Your task to perform on an android device: turn vacation reply on in the gmail app Image 0: 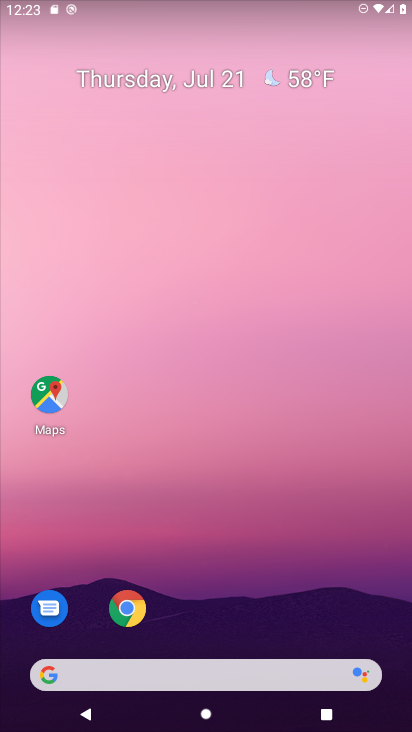
Step 0: press home button
Your task to perform on an android device: turn vacation reply on in the gmail app Image 1: 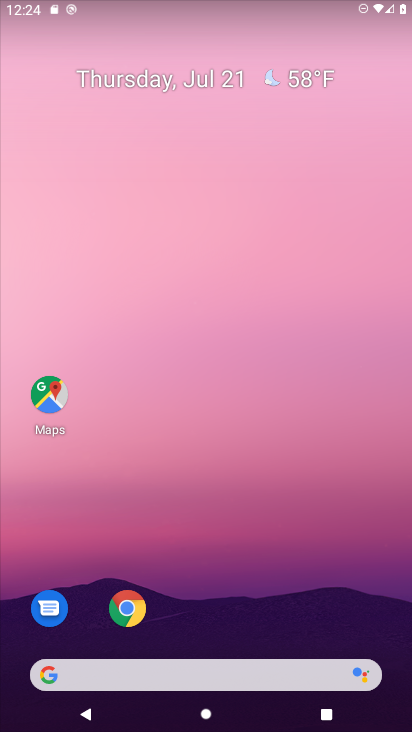
Step 1: press home button
Your task to perform on an android device: turn vacation reply on in the gmail app Image 2: 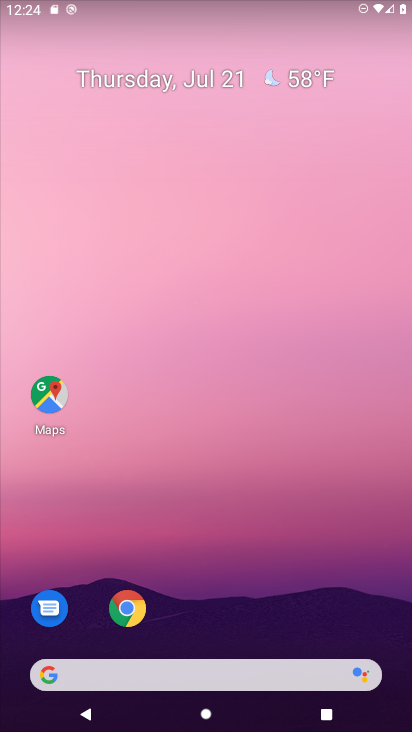
Step 2: drag from (267, 626) to (353, 74)
Your task to perform on an android device: turn vacation reply on in the gmail app Image 3: 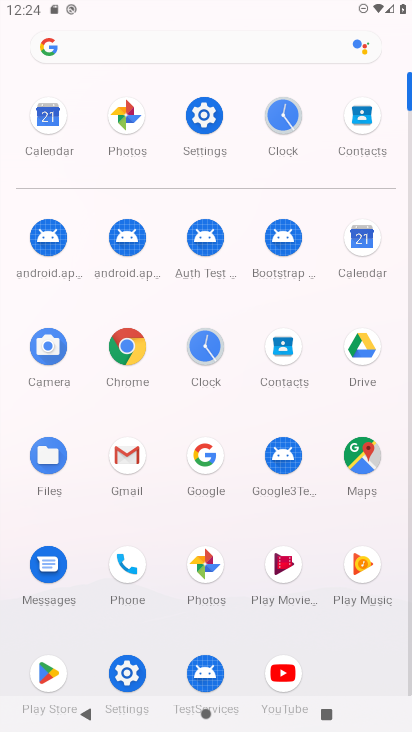
Step 3: drag from (327, 293) to (35, 252)
Your task to perform on an android device: turn vacation reply on in the gmail app Image 4: 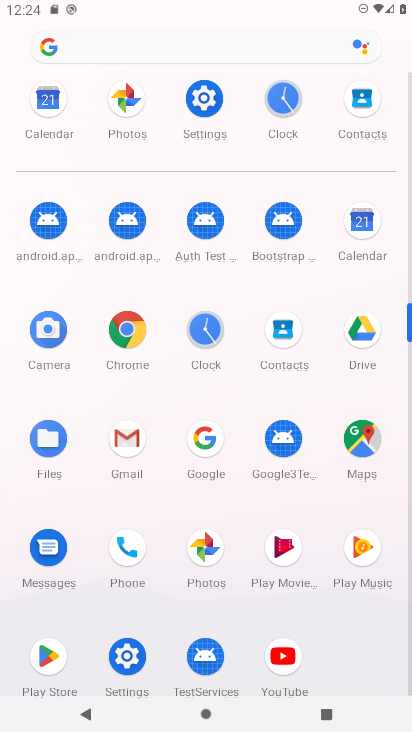
Step 4: drag from (366, 299) to (0, 298)
Your task to perform on an android device: turn vacation reply on in the gmail app Image 5: 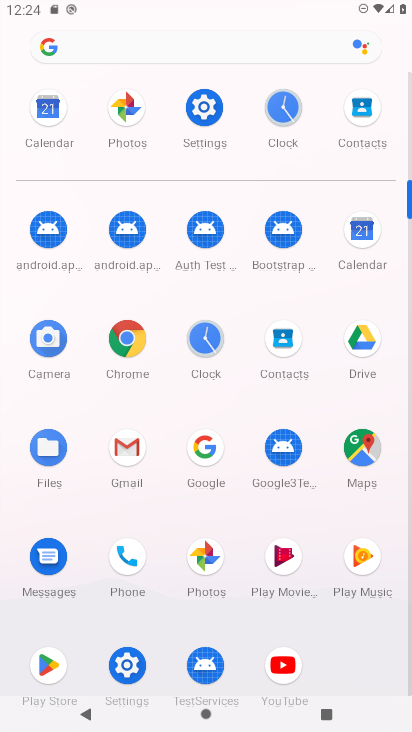
Step 5: click (129, 441)
Your task to perform on an android device: turn vacation reply on in the gmail app Image 6: 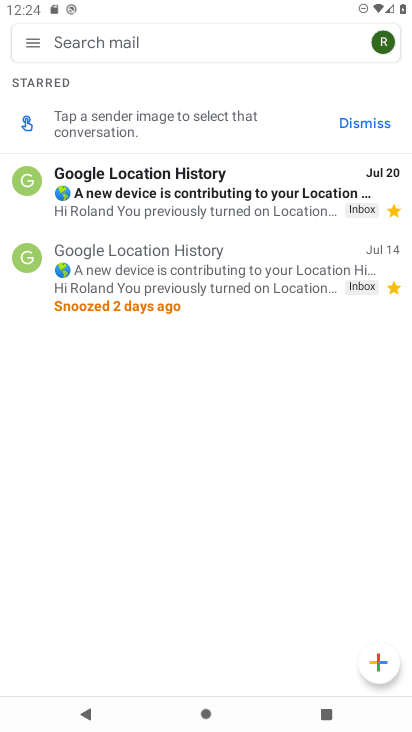
Step 6: click (34, 47)
Your task to perform on an android device: turn vacation reply on in the gmail app Image 7: 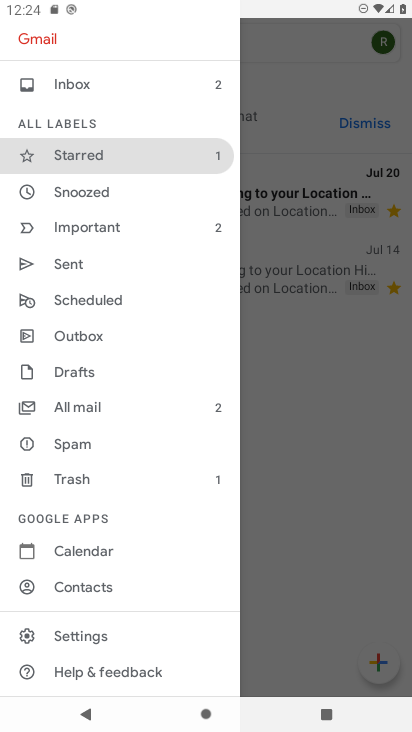
Step 7: click (61, 623)
Your task to perform on an android device: turn vacation reply on in the gmail app Image 8: 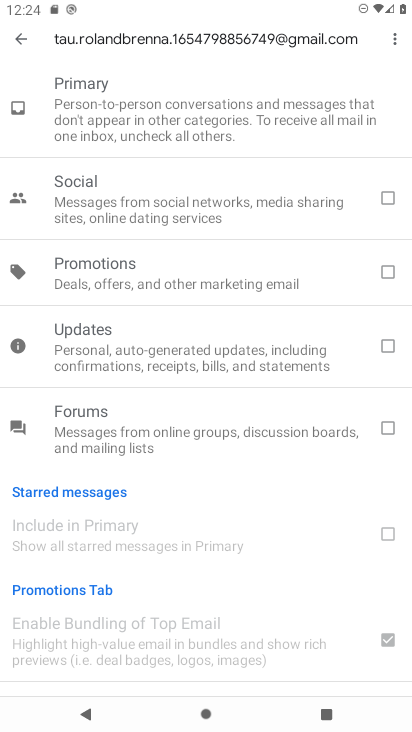
Step 8: drag from (216, 662) to (225, 130)
Your task to perform on an android device: turn vacation reply on in the gmail app Image 9: 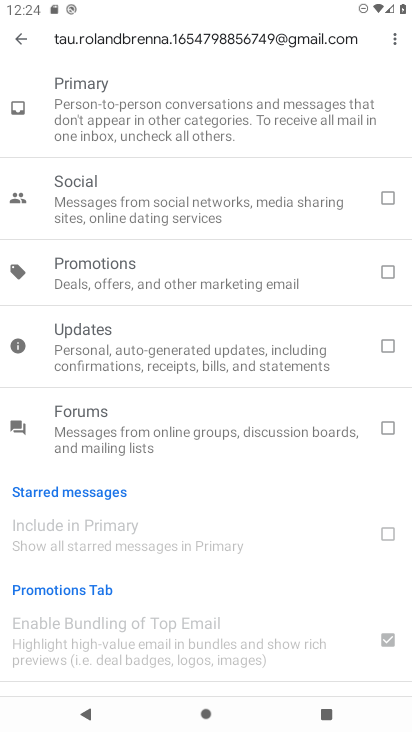
Step 9: drag from (201, 628) to (240, 175)
Your task to perform on an android device: turn vacation reply on in the gmail app Image 10: 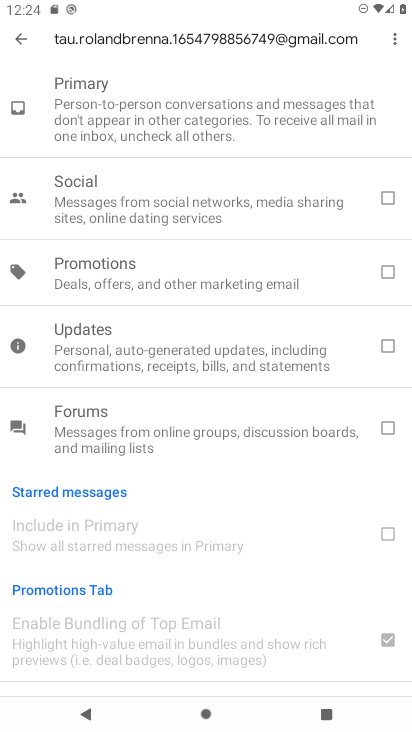
Step 10: drag from (188, 500) to (130, 702)
Your task to perform on an android device: turn vacation reply on in the gmail app Image 11: 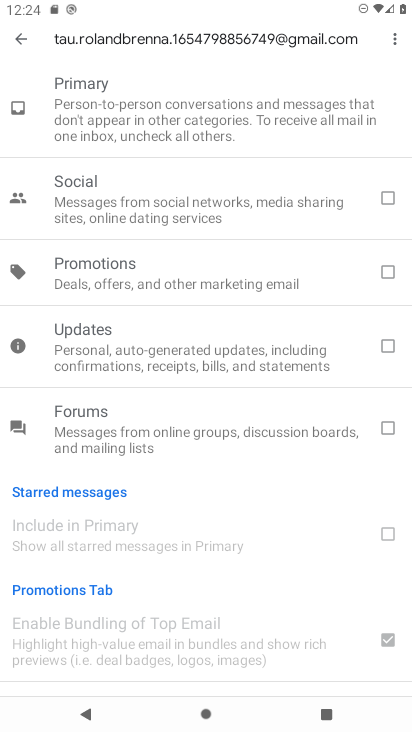
Step 11: click (11, 35)
Your task to perform on an android device: turn vacation reply on in the gmail app Image 12: 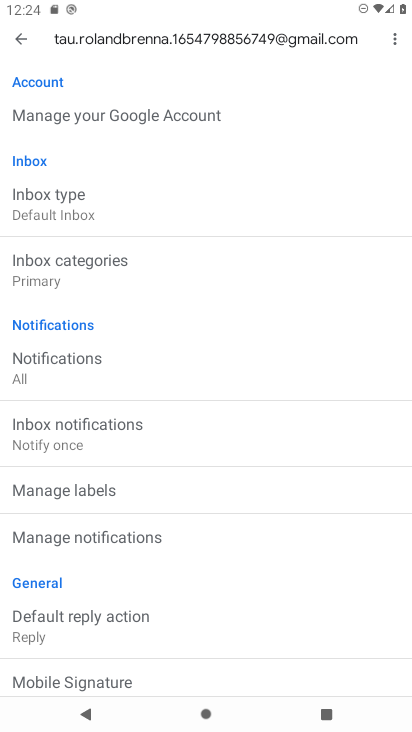
Step 12: drag from (232, 614) to (254, 211)
Your task to perform on an android device: turn vacation reply on in the gmail app Image 13: 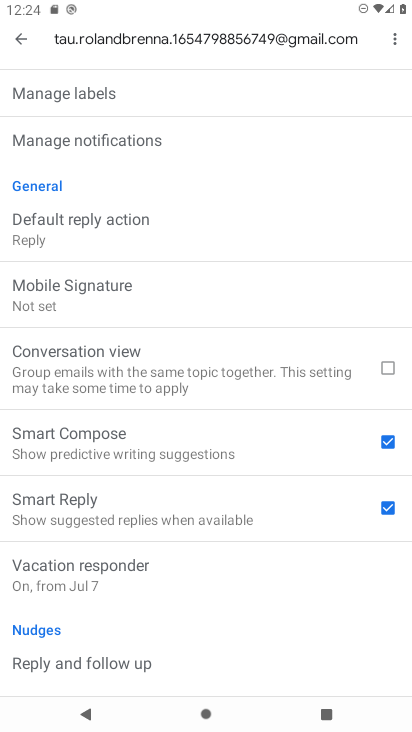
Step 13: click (110, 568)
Your task to perform on an android device: turn vacation reply on in the gmail app Image 14: 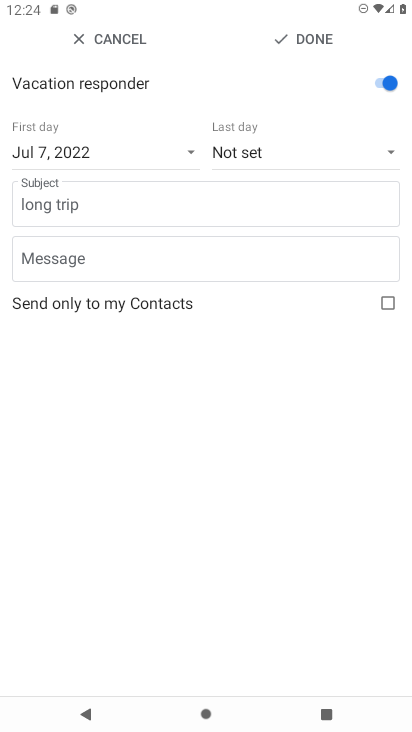
Step 14: click (308, 33)
Your task to perform on an android device: turn vacation reply on in the gmail app Image 15: 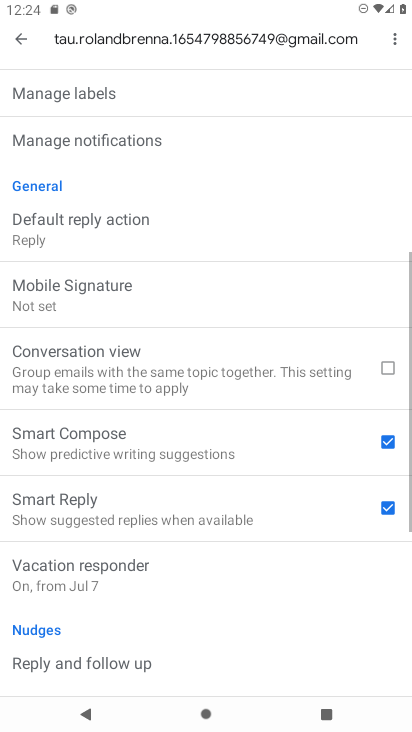
Step 15: task complete